Your task to perform on an android device: open a new tab in the chrome app Image 0: 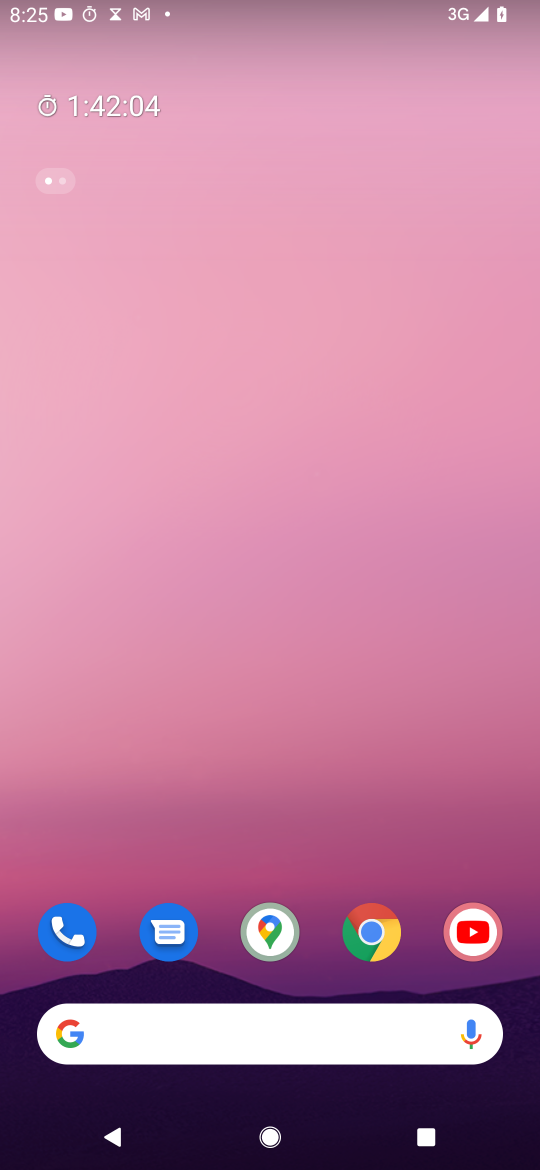
Step 0: drag from (299, 843) to (288, 60)
Your task to perform on an android device: open a new tab in the chrome app Image 1: 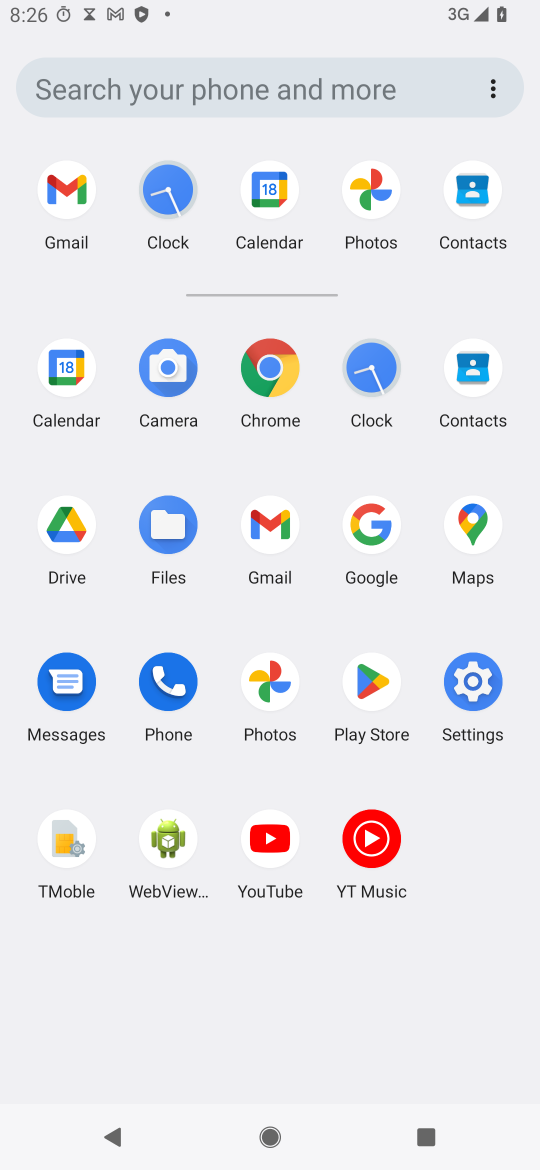
Step 1: click (271, 361)
Your task to perform on an android device: open a new tab in the chrome app Image 2: 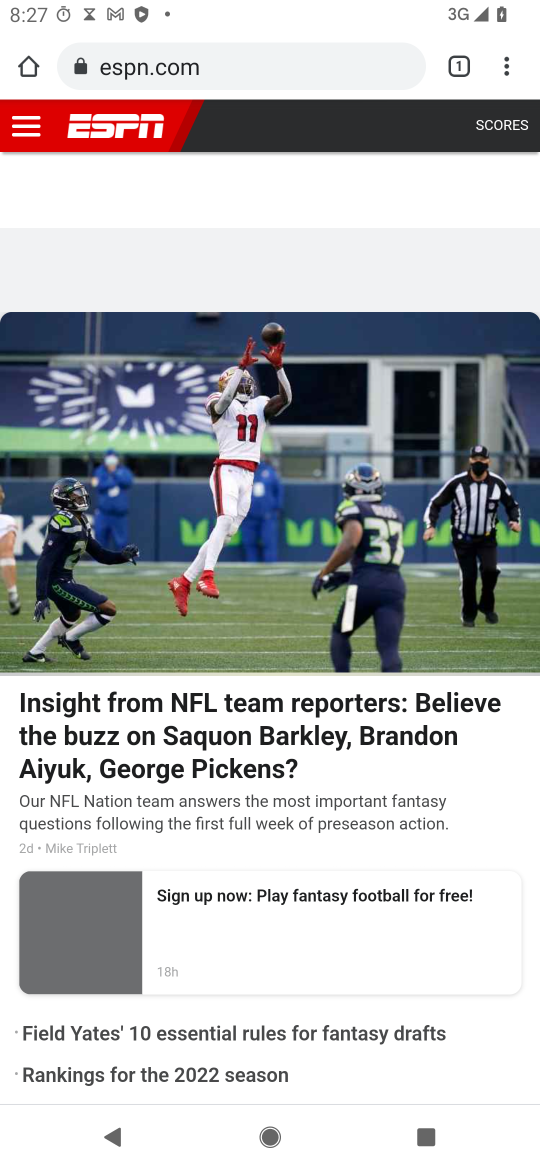
Step 2: click (501, 71)
Your task to perform on an android device: open a new tab in the chrome app Image 3: 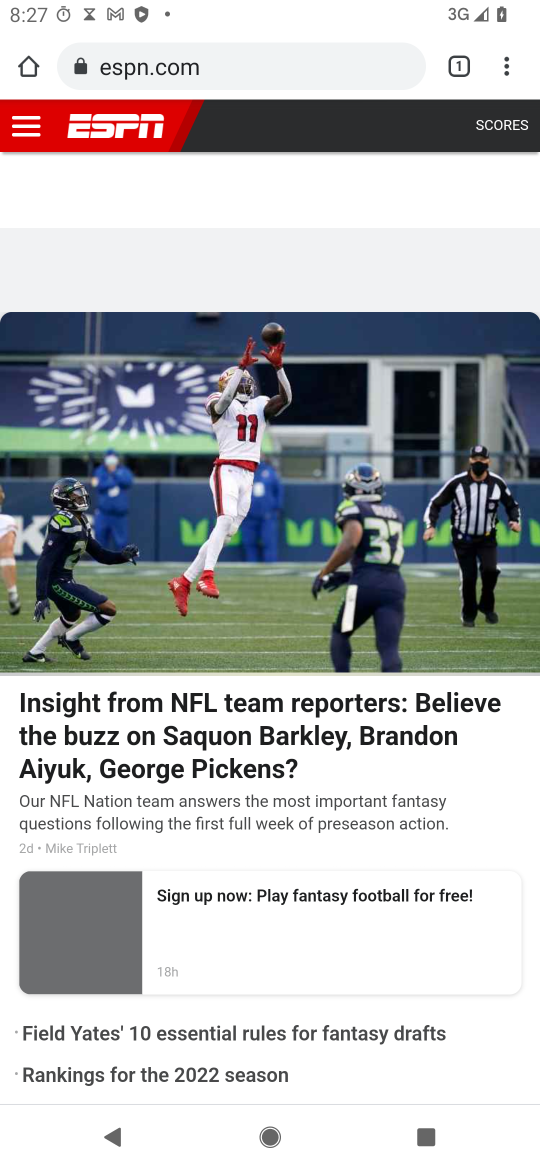
Step 3: task complete